Your task to perform on an android device: check battery use Image 0: 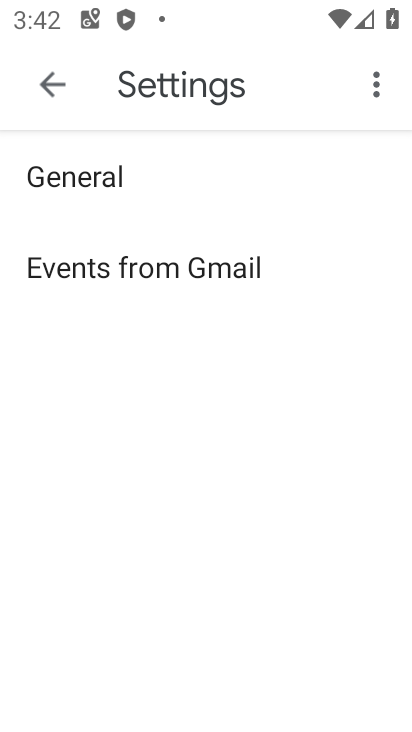
Step 0: press home button
Your task to perform on an android device: check battery use Image 1: 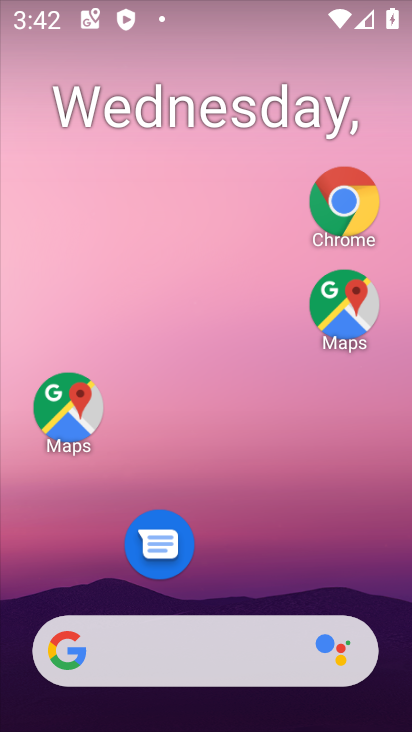
Step 1: drag from (251, 468) to (271, 101)
Your task to perform on an android device: check battery use Image 2: 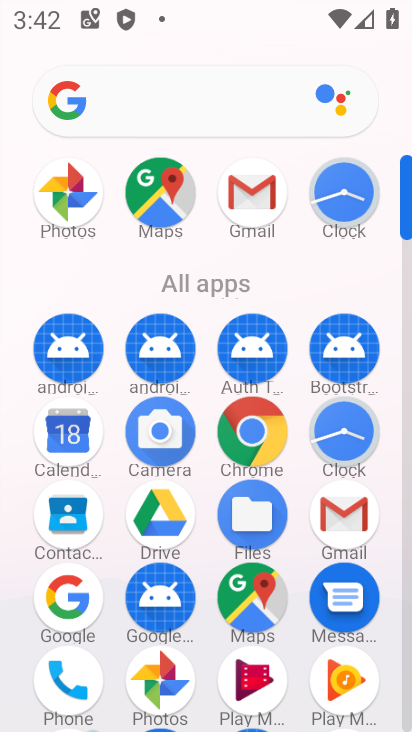
Step 2: drag from (292, 585) to (266, 242)
Your task to perform on an android device: check battery use Image 3: 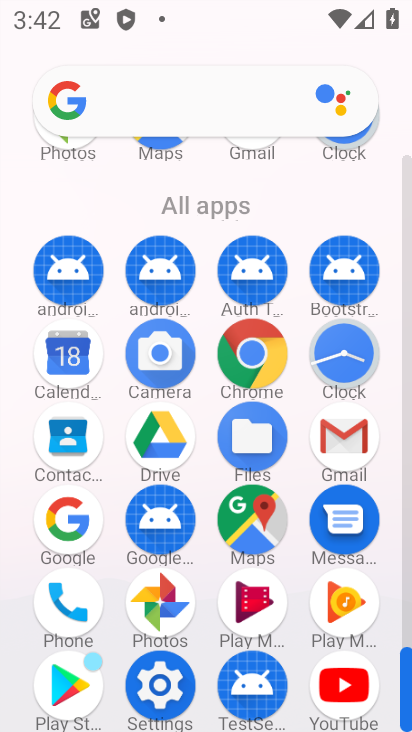
Step 3: click (148, 676)
Your task to perform on an android device: check battery use Image 4: 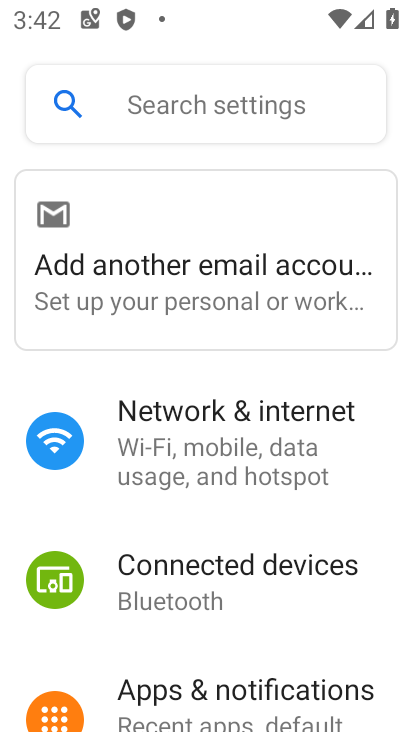
Step 4: drag from (212, 676) to (205, 447)
Your task to perform on an android device: check battery use Image 5: 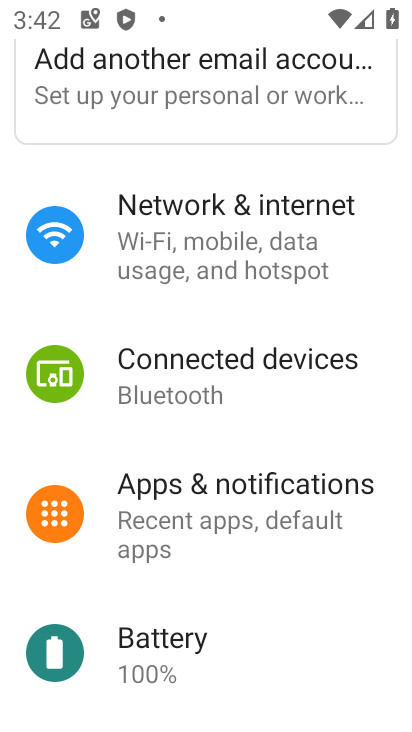
Step 5: click (214, 639)
Your task to perform on an android device: check battery use Image 6: 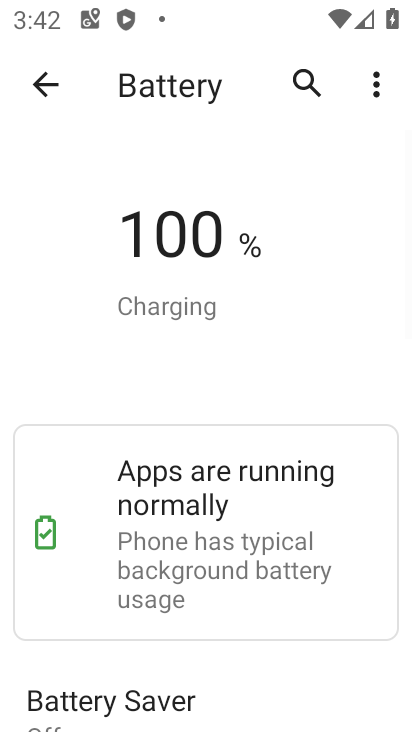
Step 6: task complete